Your task to perform on an android device: turn on bluetooth scan Image 0: 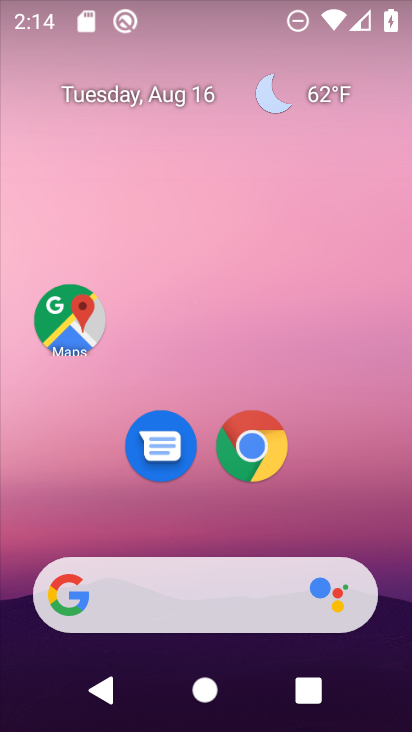
Step 0: press home button
Your task to perform on an android device: turn on bluetooth scan Image 1: 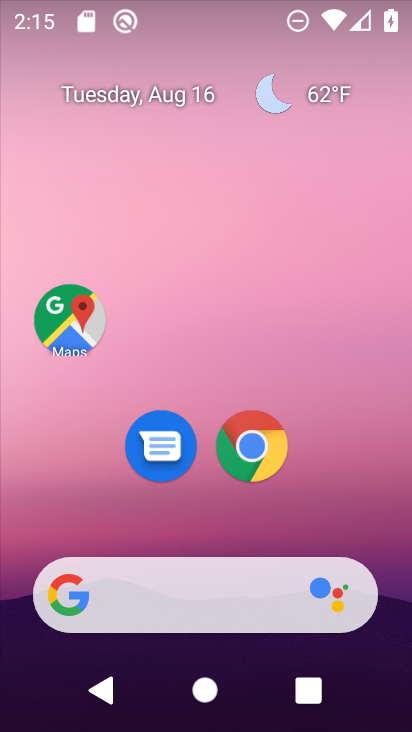
Step 1: drag from (198, 533) to (399, 57)
Your task to perform on an android device: turn on bluetooth scan Image 2: 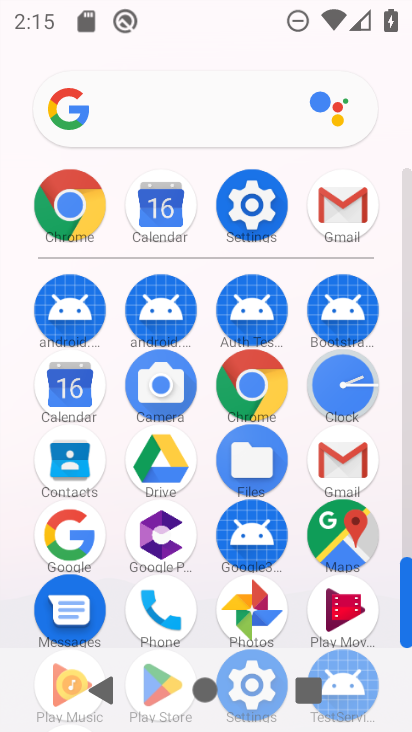
Step 2: click (249, 201)
Your task to perform on an android device: turn on bluetooth scan Image 3: 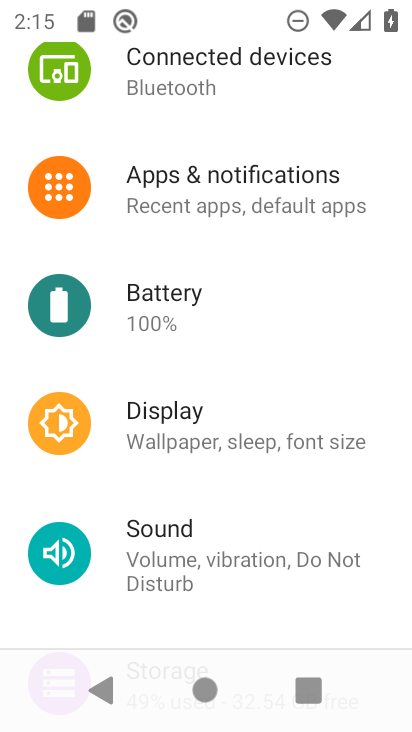
Step 3: drag from (197, 566) to (191, 55)
Your task to perform on an android device: turn on bluetooth scan Image 4: 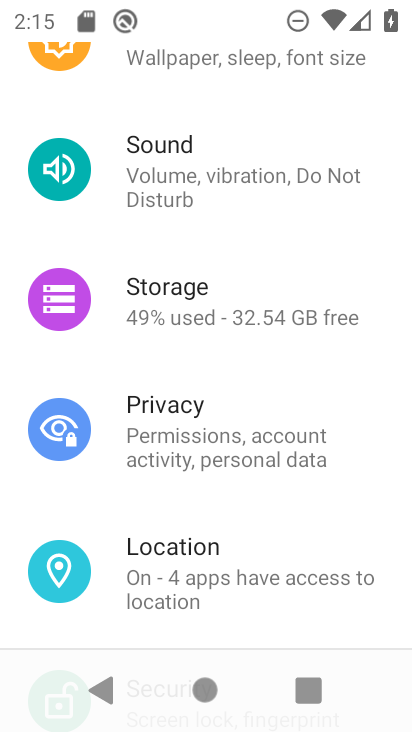
Step 4: click (229, 551)
Your task to perform on an android device: turn on bluetooth scan Image 5: 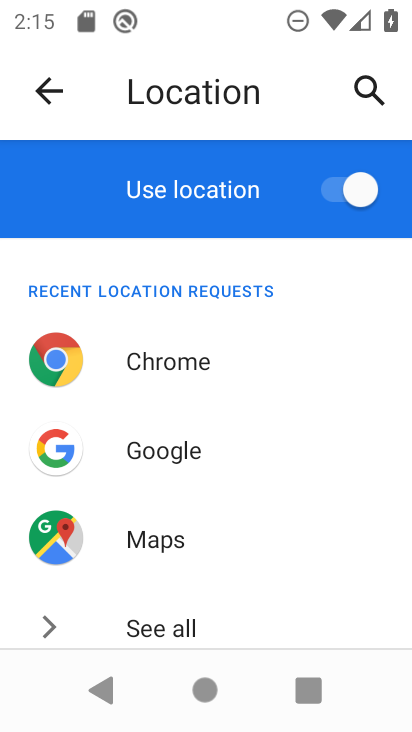
Step 5: drag from (232, 595) to (252, 196)
Your task to perform on an android device: turn on bluetooth scan Image 6: 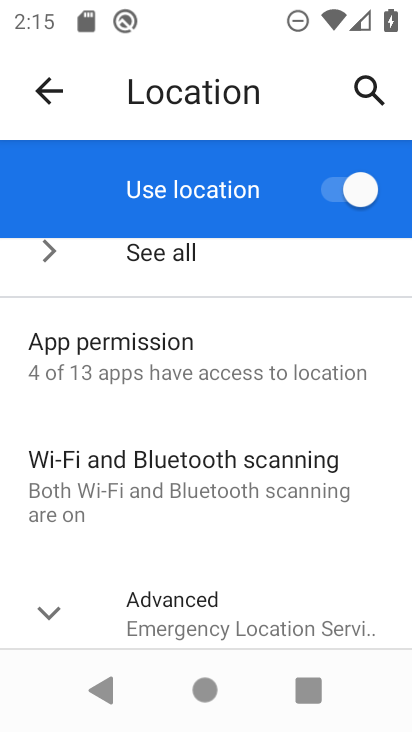
Step 6: click (228, 477)
Your task to perform on an android device: turn on bluetooth scan Image 7: 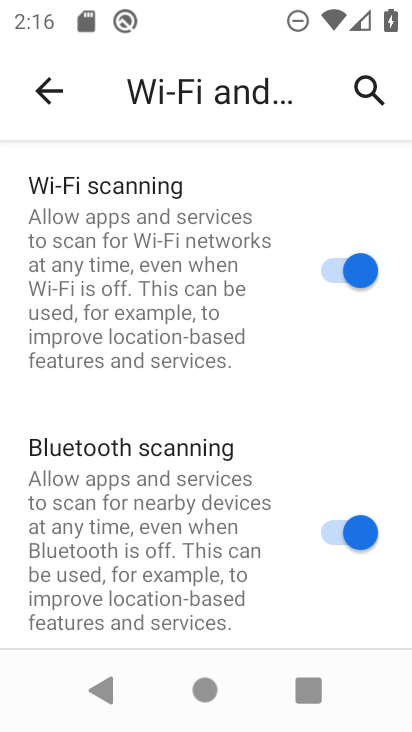
Step 7: task complete